Your task to perform on an android device: Open internet settings Image 0: 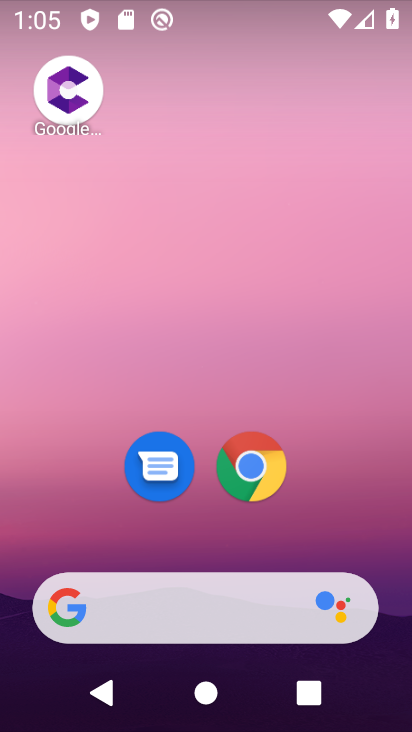
Step 0: drag from (86, 575) to (217, 89)
Your task to perform on an android device: Open internet settings Image 1: 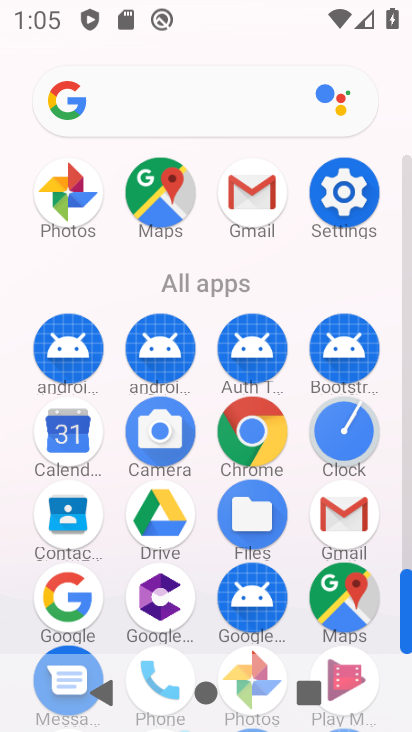
Step 1: drag from (133, 676) to (223, 336)
Your task to perform on an android device: Open internet settings Image 2: 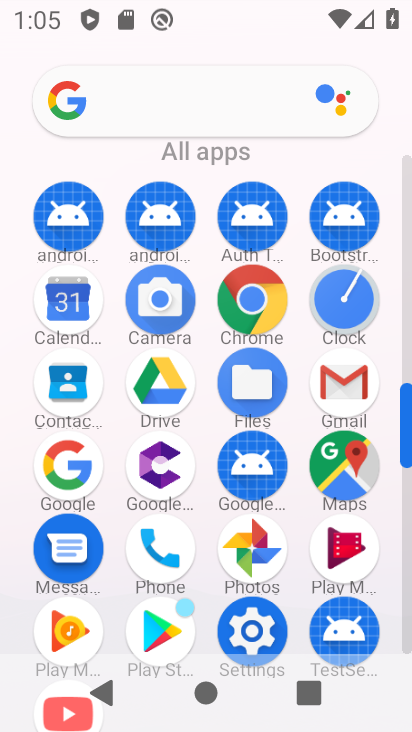
Step 2: click (267, 610)
Your task to perform on an android device: Open internet settings Image 3: 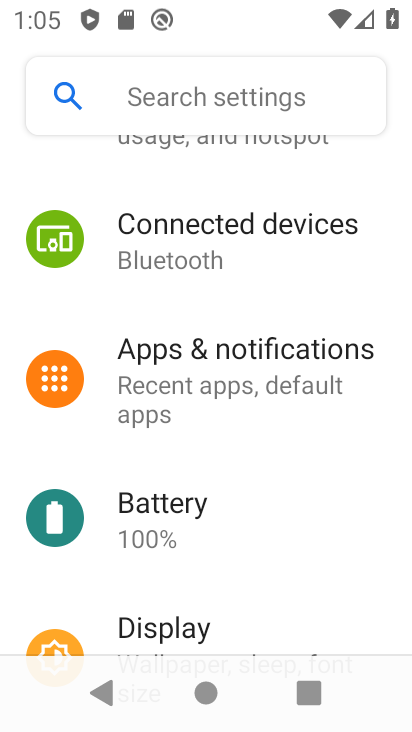
Step 3: drag from (265, 204) to (257, 600)
Your task to perform on an android device: Open internet settings Image 4: 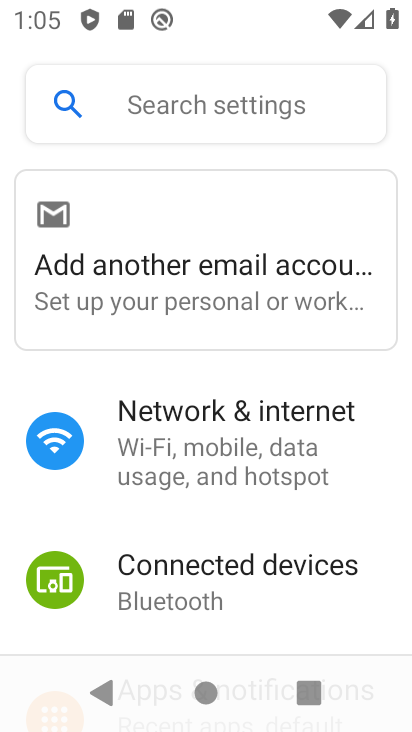
Step 4: click (234, 457)
Your task to perform on an android device: Open internet settings Image 5: 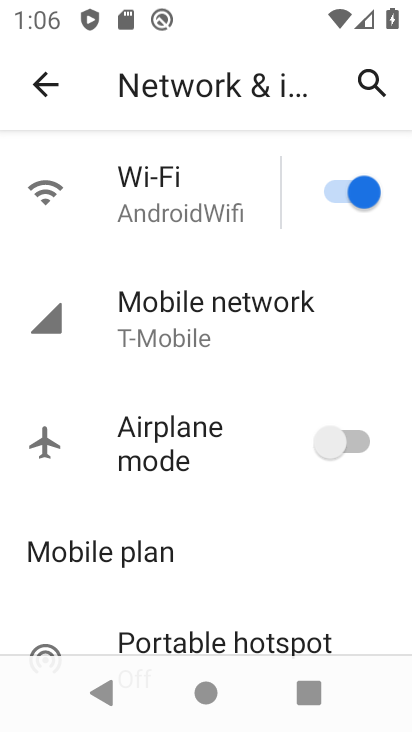
Step 5: click (257, 315)
Your task to perform on an android device: Open internet settings Image 6: 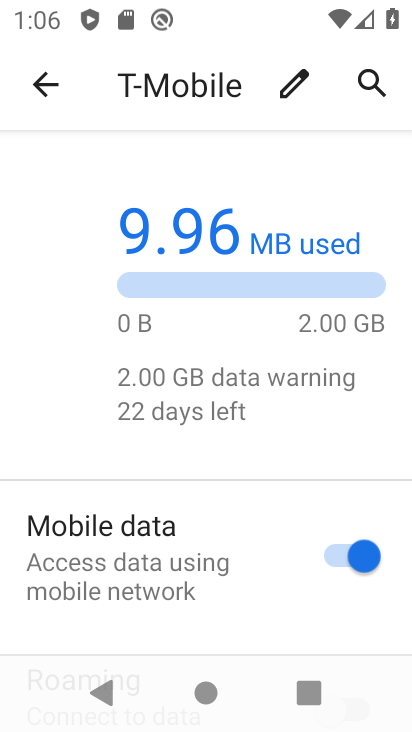
Step 6: task complete